Your task to perform on an android device: Open Chrome and go to settings Image 0: 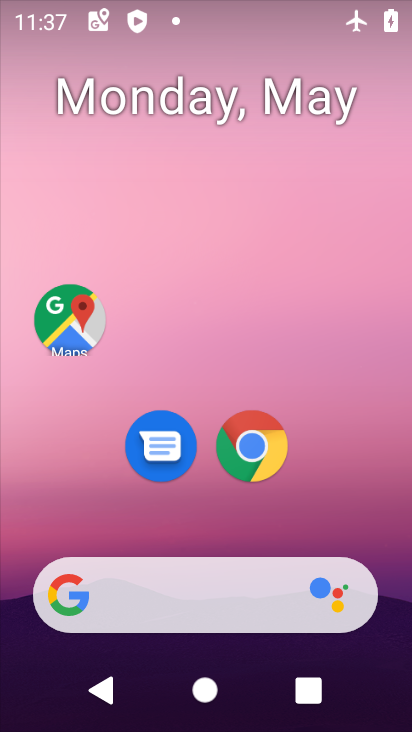
Step 0: click (252, 445)
Your task to perform on an android device: Open Chrome and go to settings Image 1: 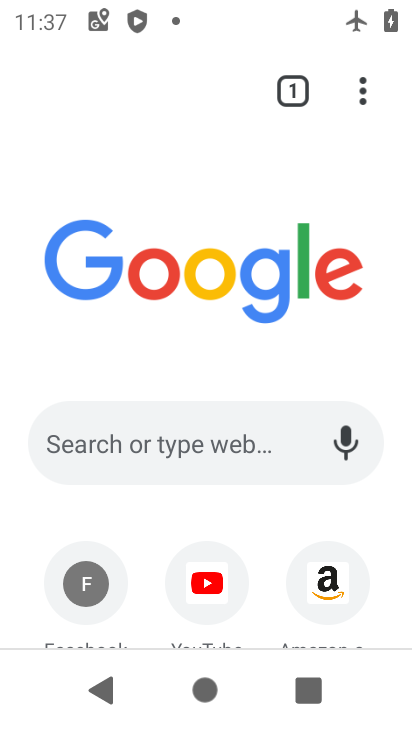
Step 1: click (363, 94)
Your task to perform on an android device: Open Chrome and go to settings Image 2: 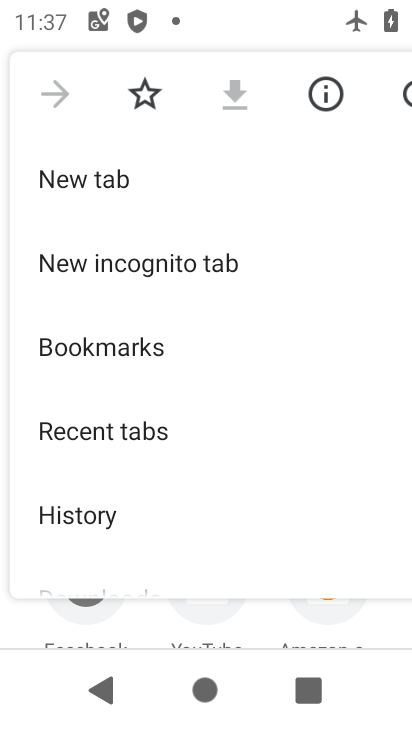
Step 2: drag from (160, 491) to (178, 362)
Your task to perform on an android device: Open Chrome and go to settings Image 3: 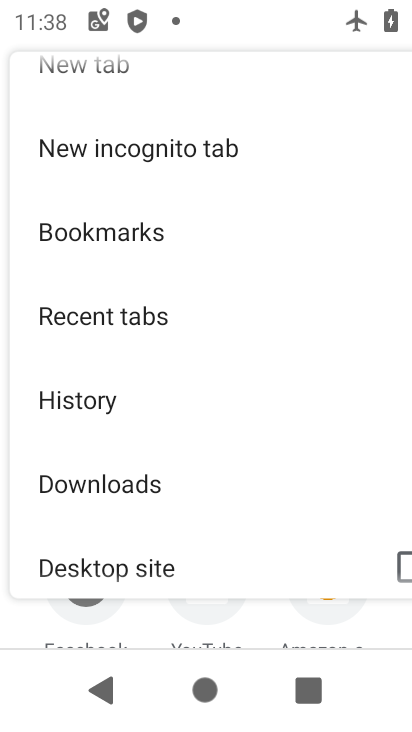
Step 3: drag from (131, 507) to (164, 410)
Your task to perform on an android device: Open Chrome and go to settings Image 4: 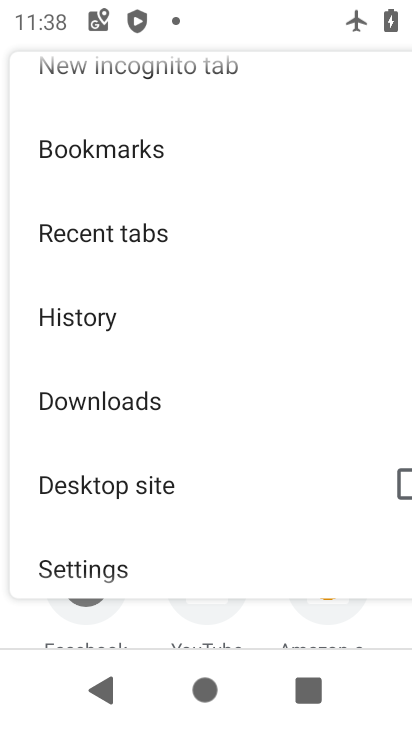
Step 4: drag from (96, 524) to (158, 422)
Your task to perform on an android device: Open Chrome and go to settings Image 5: 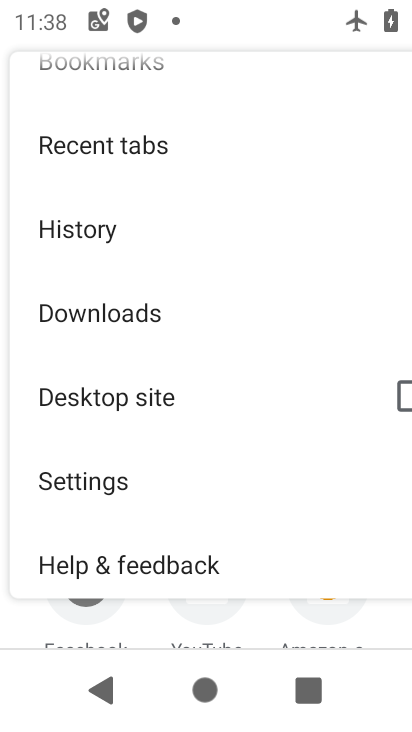
Step 5: click (108, 481)
Your task to perform on an android device: Open Chrome and go to settings Image 6: 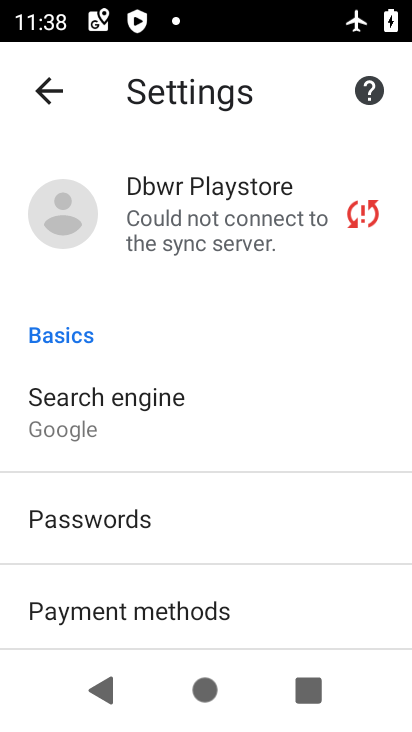
Step 6: task complete